Your task to perform on an android device: choose inbox layout in the gmail app Image 0: 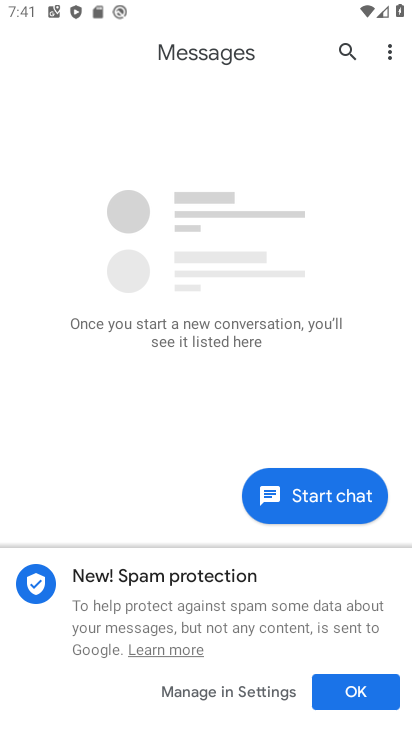
Step 0: press home button
Your task to perform on an android device: choose inbox layout in the gmail app Image 1: 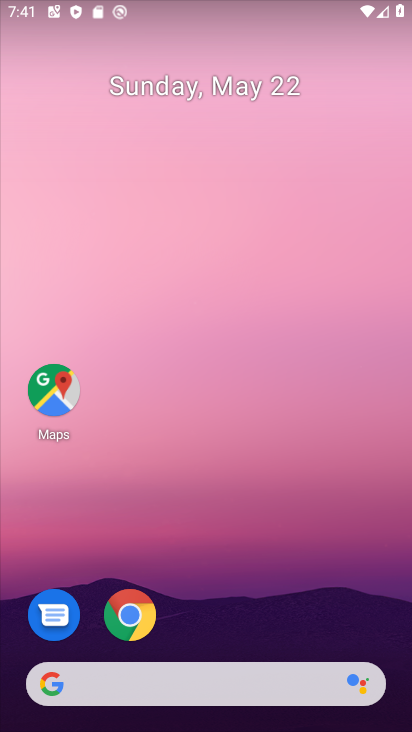
Step 1: drag from (231, 643) to (238, 4)
Your task to perform on an android device: choose inbox layout in the gmail app Image 2: 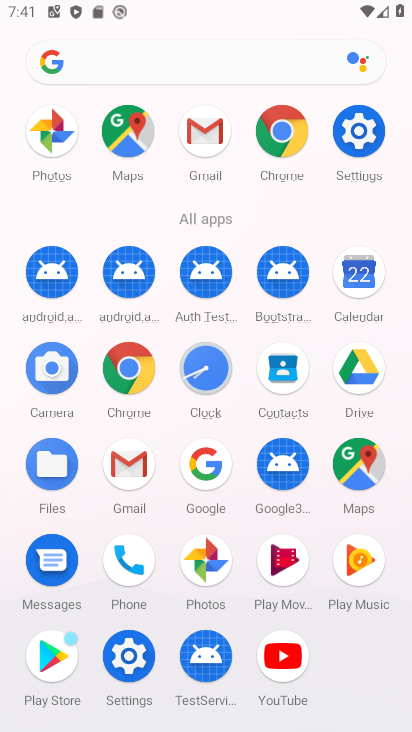
Step 2: click (127, 462)
Your task to perform on an android device: choose inbox layout in the gmail app Image 3: 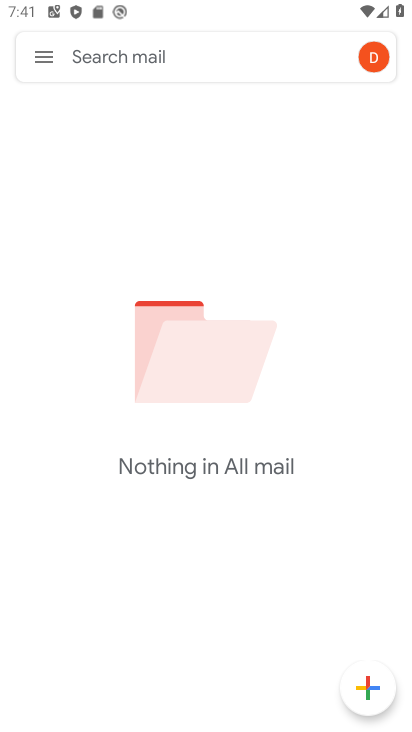
Step 3: click (36, 59)
Your task to perform on an android device: choose inbox layout in the gmail app Image 4: 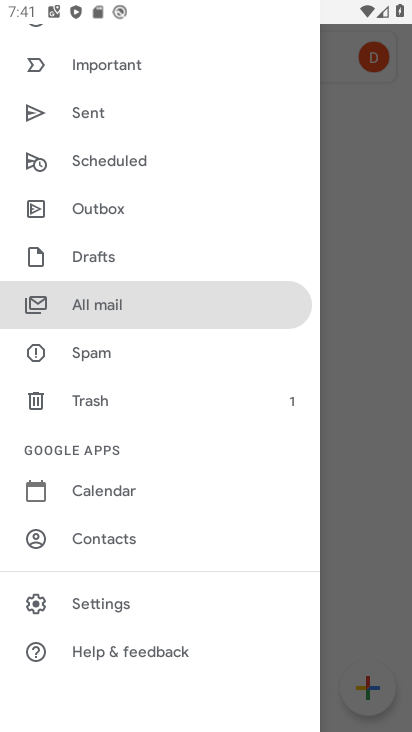
Step 4: click (82, 591)
Your task to perform on an android device: choose inbox layout in the gmail app Image 5: 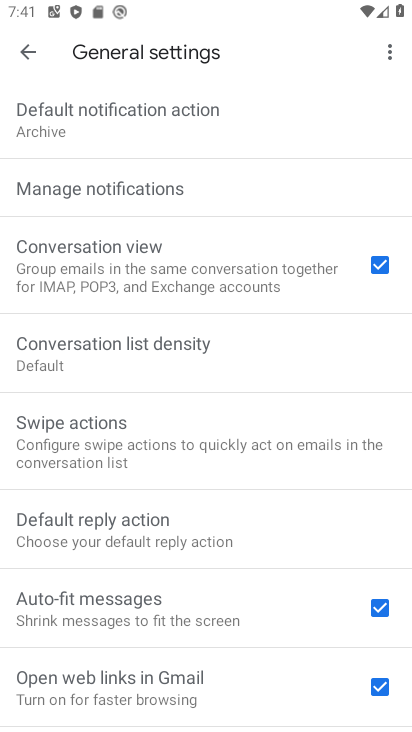
Step 5: click (36, 55)
Your task to perform on an android device: choose inbox layout in the gmail app Image 6: 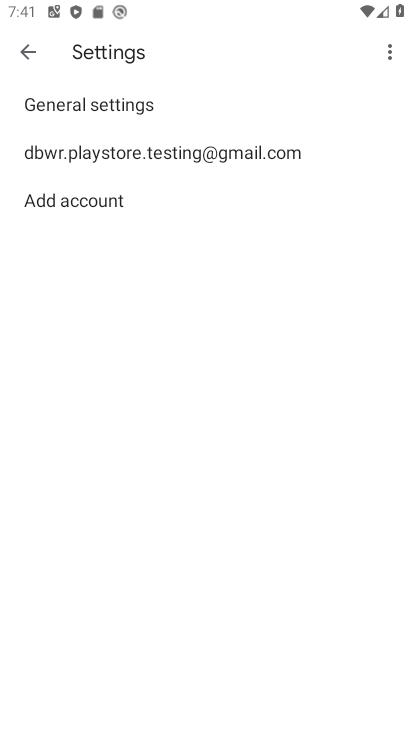
Step 6: click (62, 150)
Your task to perform on an android device: choose inbox layout in the gmail app Image 7: 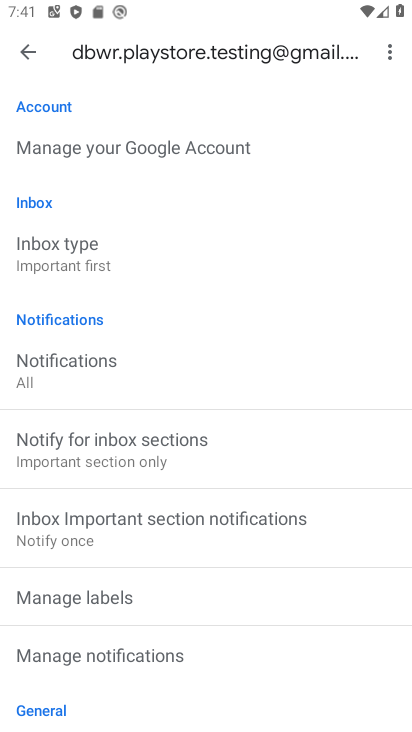
Step 7: click (56, 259)
Your task to perform on an android device: choose inbox layout in the gmail app Image 8: 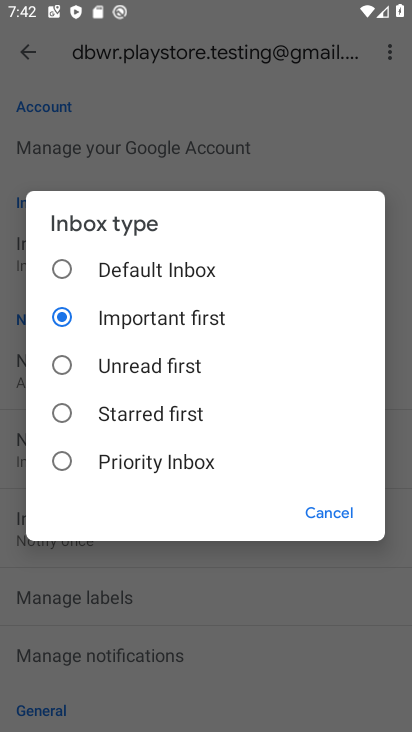
Step 8: click (170, 470)
Your task to perform on an android device: choose inbox layout in the gmail app Image 9: 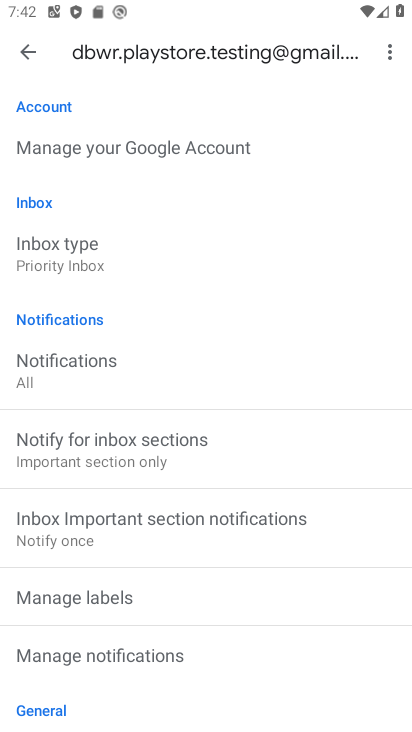
Step 9: click (25, 53)
Your task to perform on an android device: choose inbox layout in the gmail app Image 10: 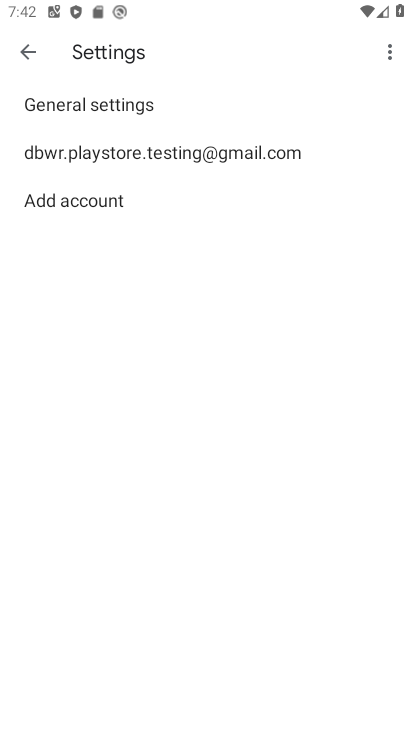
Step 10: click (25, 53)
Your task to perform on an android device: choose inbox layout in the gmail app Image 11: 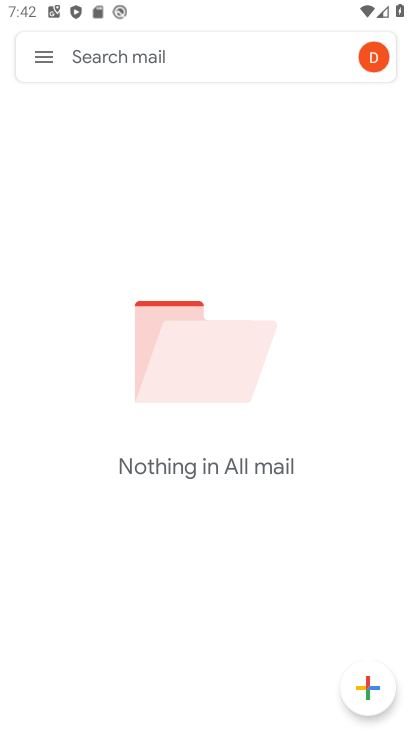
Step 11: click (25, 53)
Your task to perform on an android device: choose inbox layout in the gmail app Image 12: 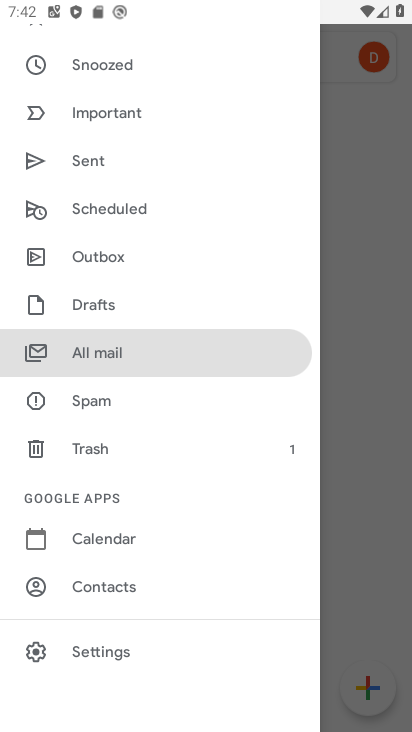
Step 12: drag from (128, 123) to (94, 450)
Your task to perform on an android device: choose inbox layout in the gmail app Image 13: 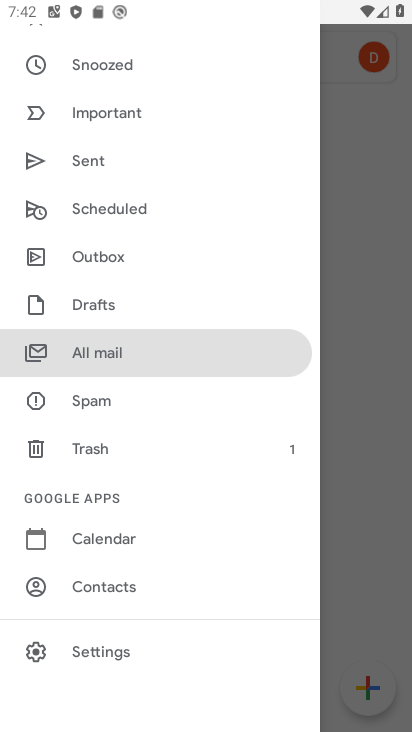
Step 13: drag from (165, 199) to (155, 595)
Your task to perform on an android device: choose inbox layout in the gmail app Image 14: 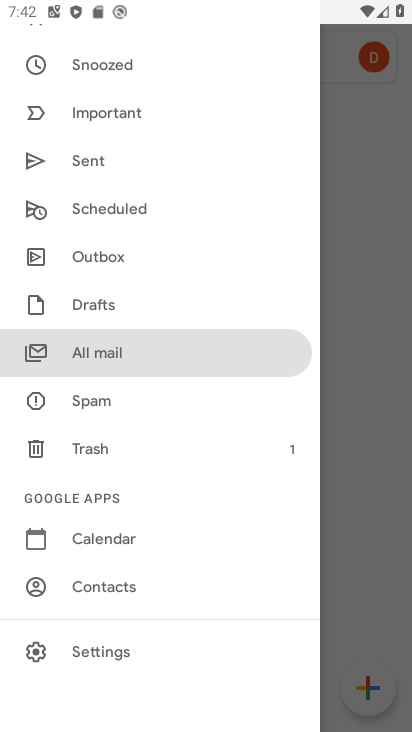
Step 14: drag from (257, 134) to (276, 513)
Your task to perform on an android device: choose inbox layout in the gmail app Image 15: 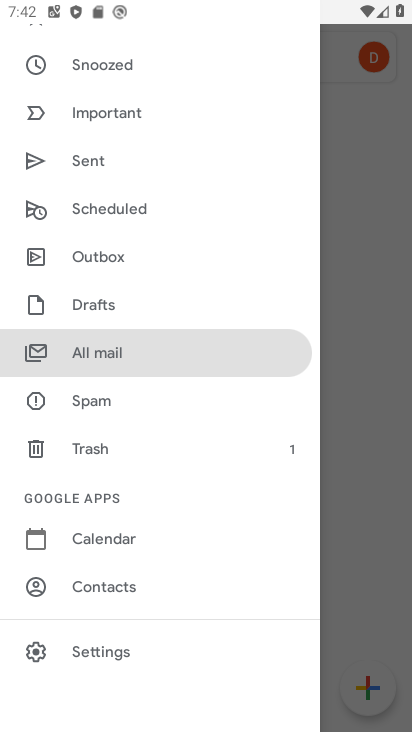
Step 15: drag from (265, 218) to (178, 710)
Your task to perform on an android device: choose inbox layout in the gmail app Image 16: 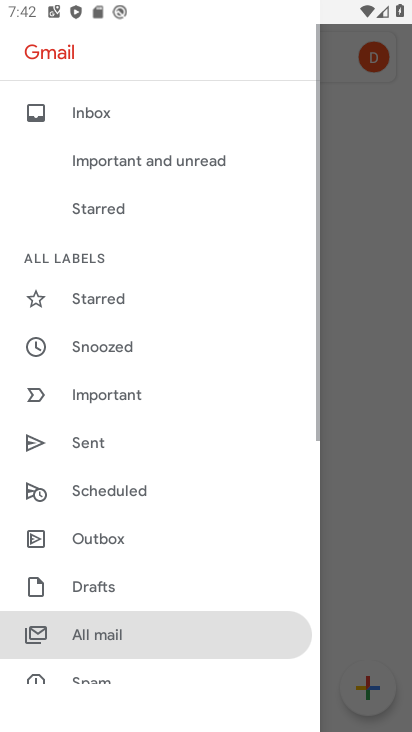
Step 16: click (122, 114)
Your task to perform on an android device: choose inbox layout in the gmail app Image 17: 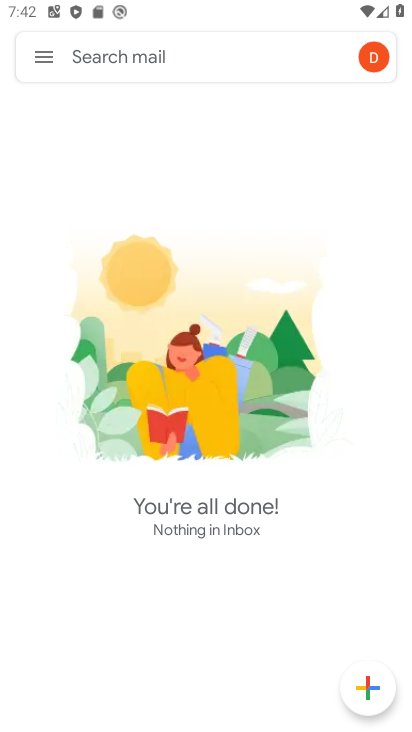
Step 17: task complete